Your task to perform on an android device: change timer sound Image 0: 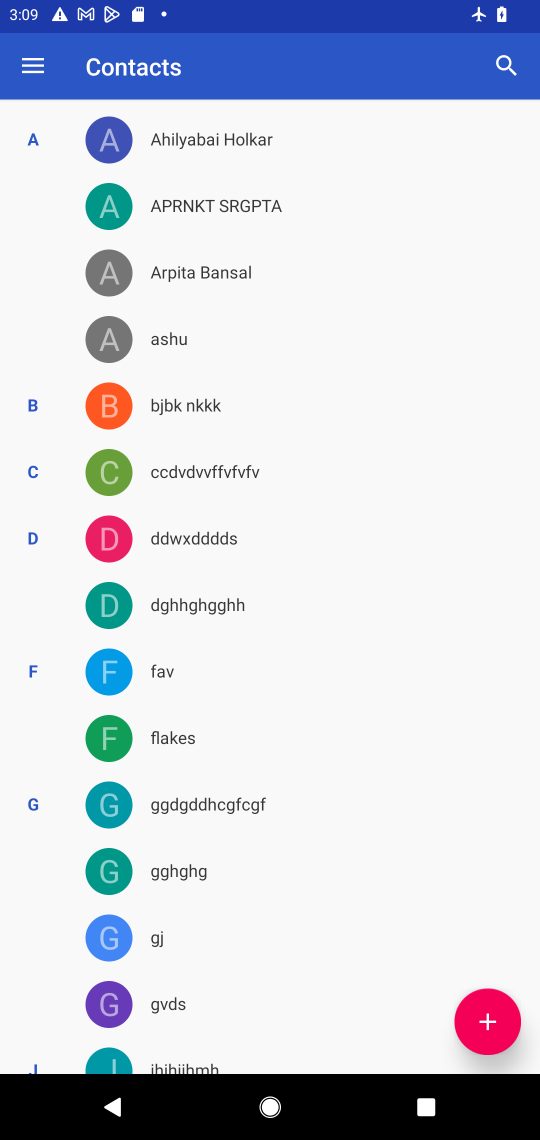
Step 0: press home button
Your task to perform on an android device: change timer sound Image 1: 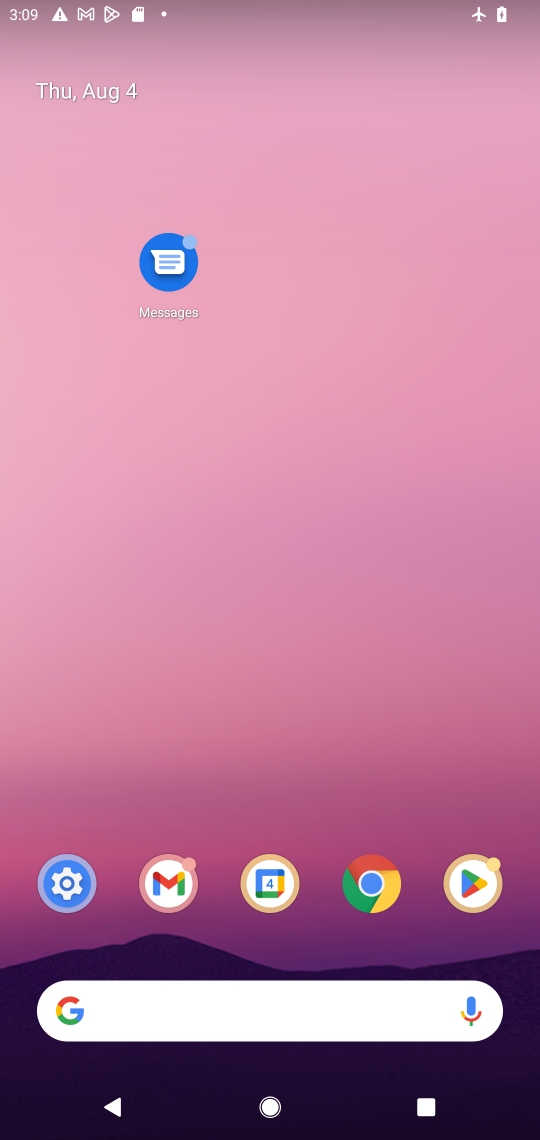
Step 1: drag from (304, 761) to (337, 70)
Your task to perform on an android device: change timer sound Image 2: 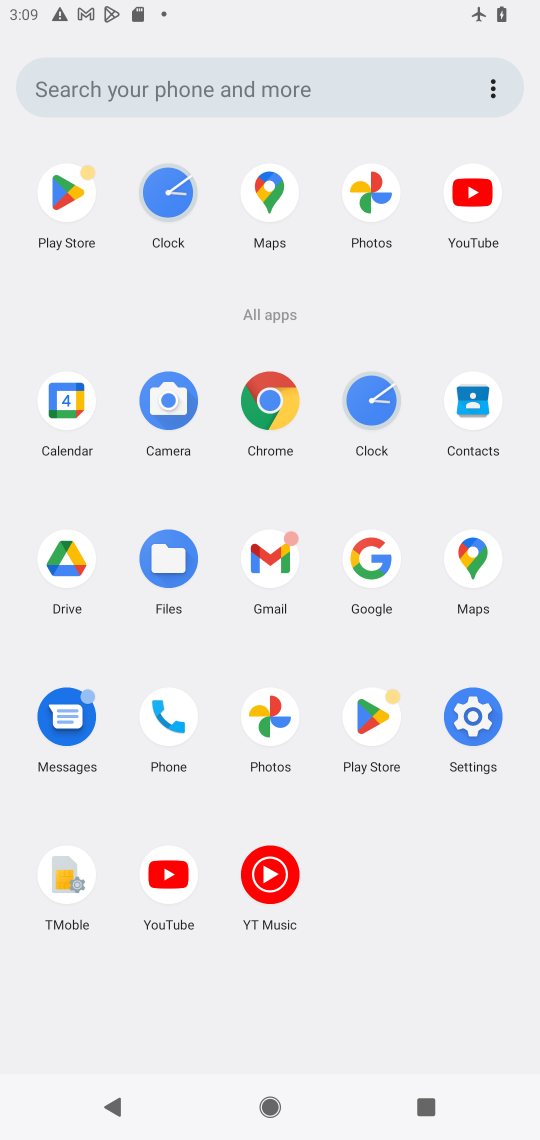
Step 2: click (373, 406)
Your task to perform on an android device: change timer sound Image 3: 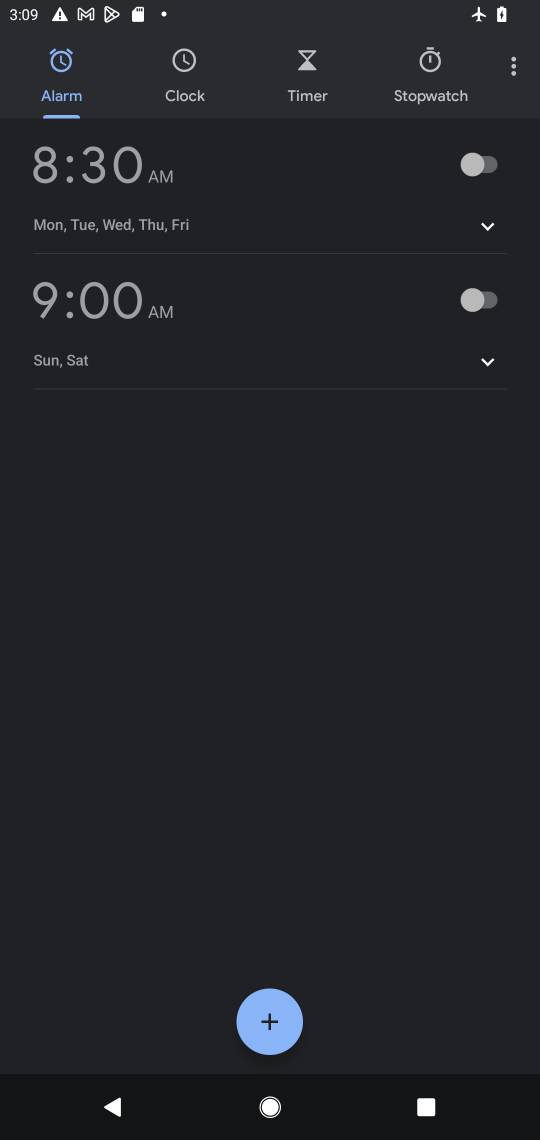
Step 3: click (515, 74)
Your task to perform on an android device: change timer sound Image 4: 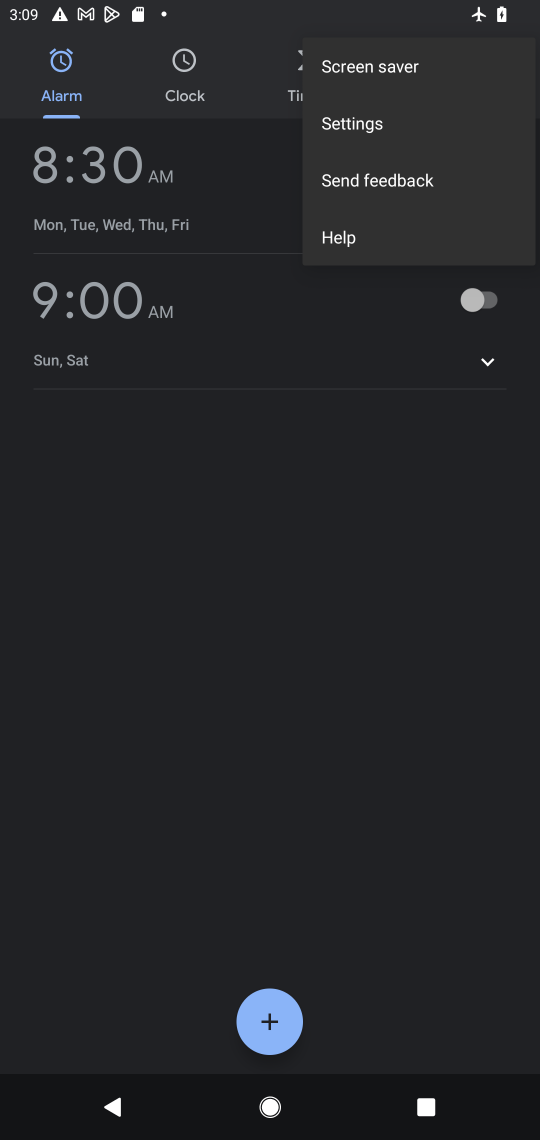
Step 4: click (376, 125)
Your task to perform on an android device: change timer sound Image 5: 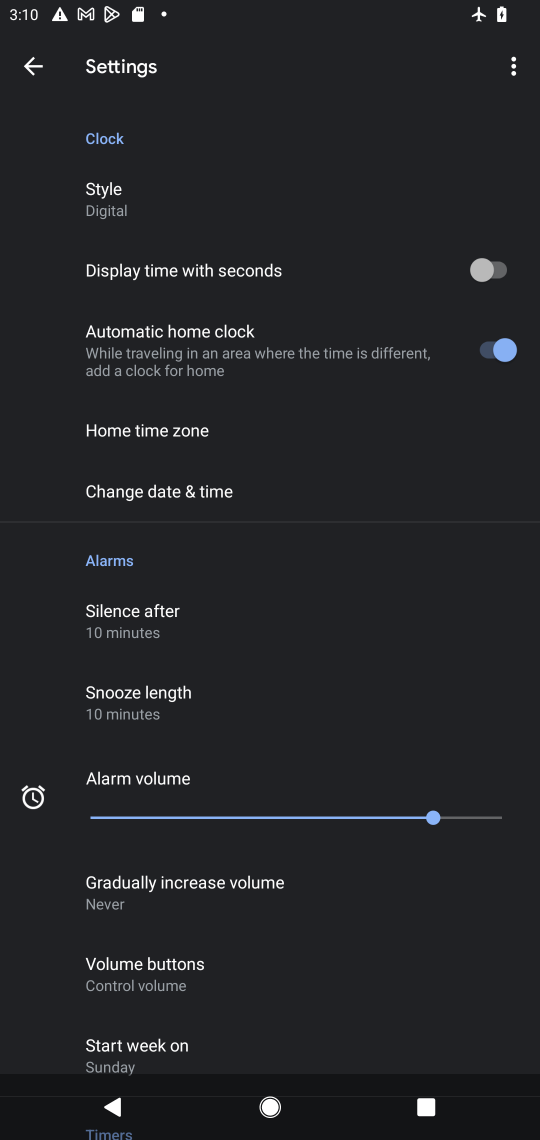
Step 5: drag from (210, 1007) to (199, 781)
Your task to perform on an android device: change timer sound Image 6: 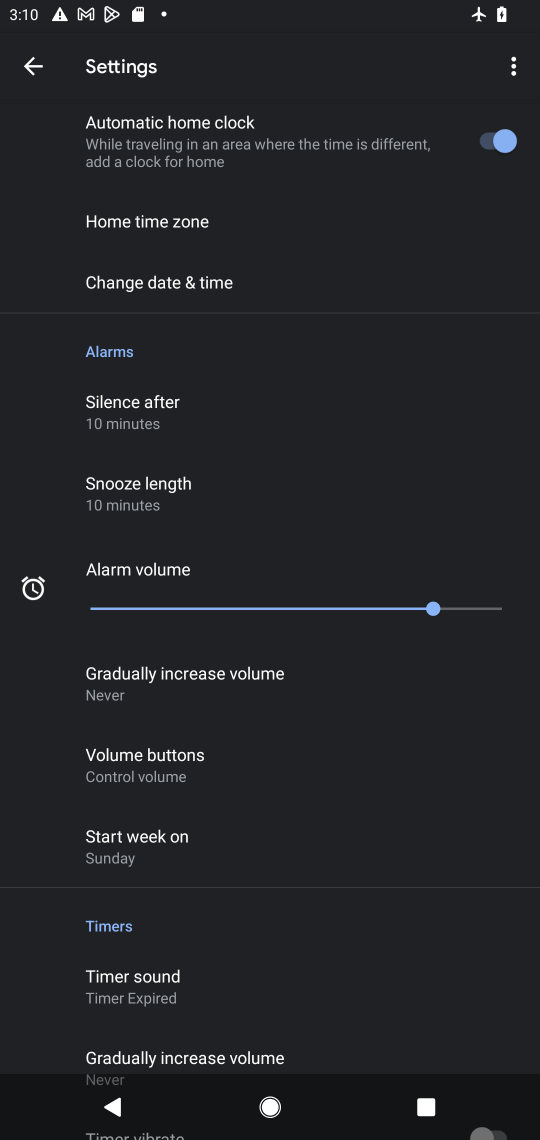
Step 6: click (133, 979)
Your task to perform on an android device: change timer sound Image 7: 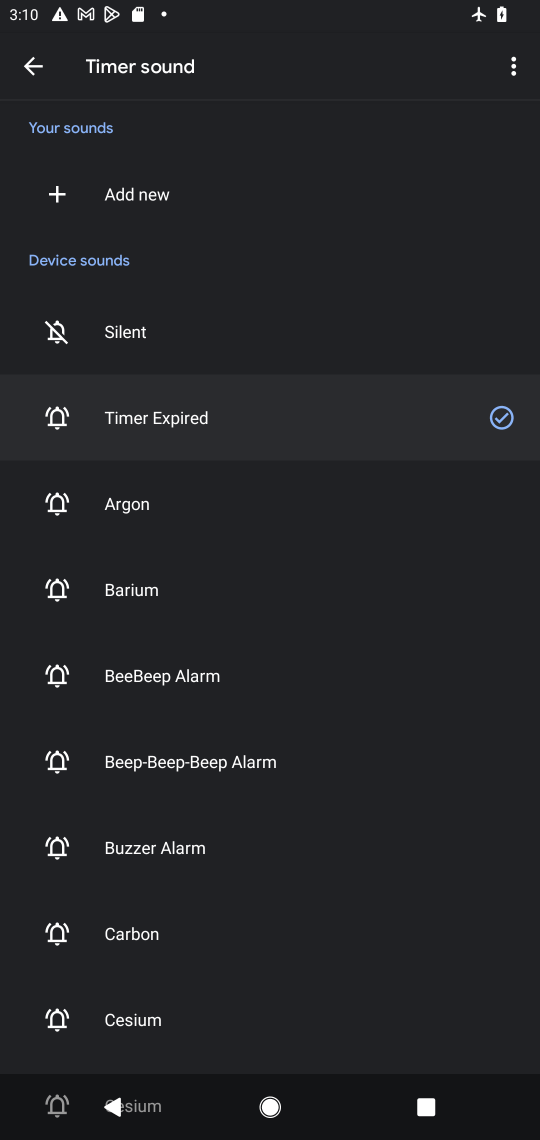
Step 7: click (137, 931)
Your task to perform on an android device: change timer sound Image 8: 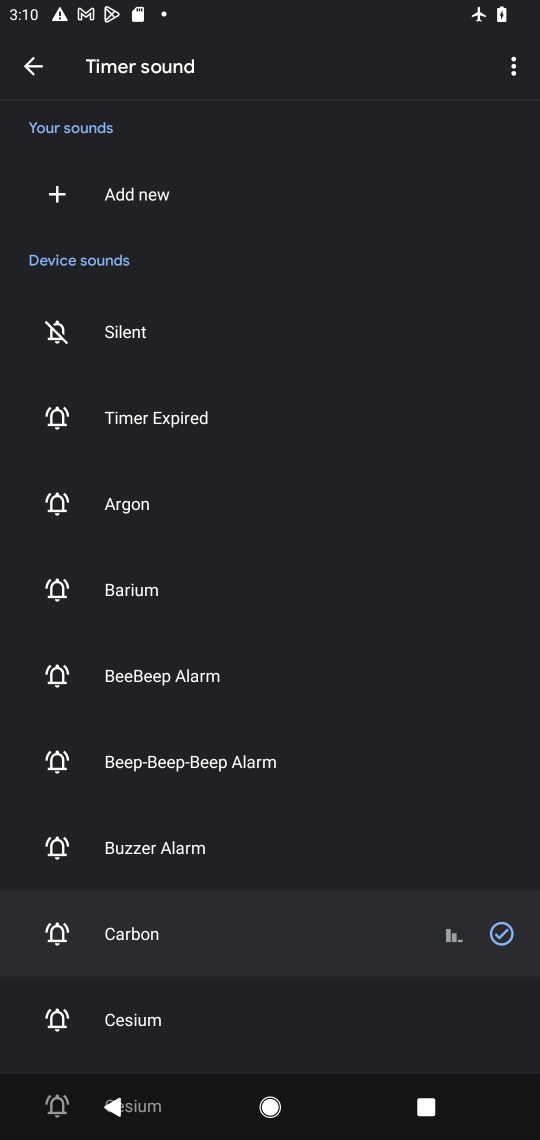
Step 8: task complete